Your task to perform on an android device: What's on my calendar today? Image 0: 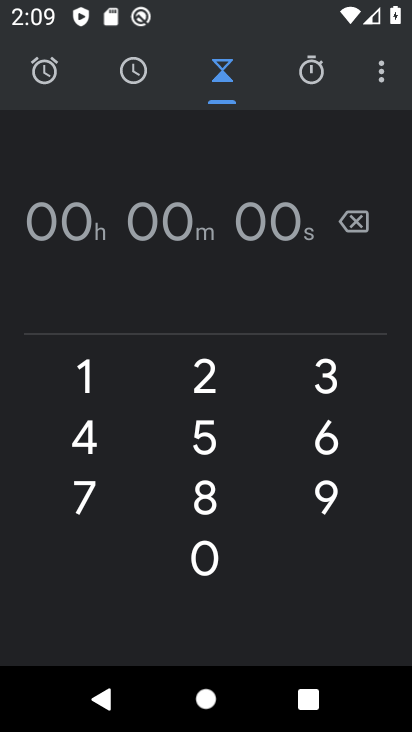
Step 0: press home button
Your task to perform on an android device: What's on my calendar today? Image 1: 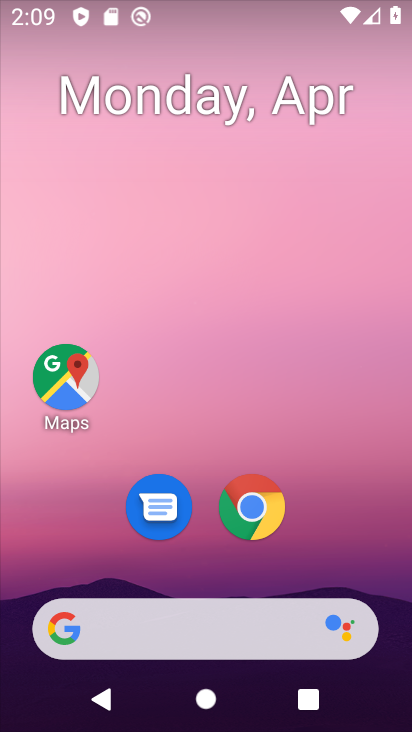
Step 1: drag from (398, 631) to (330, 22)
Your task to perform on an android device: What's on my calendar today? Image 2: 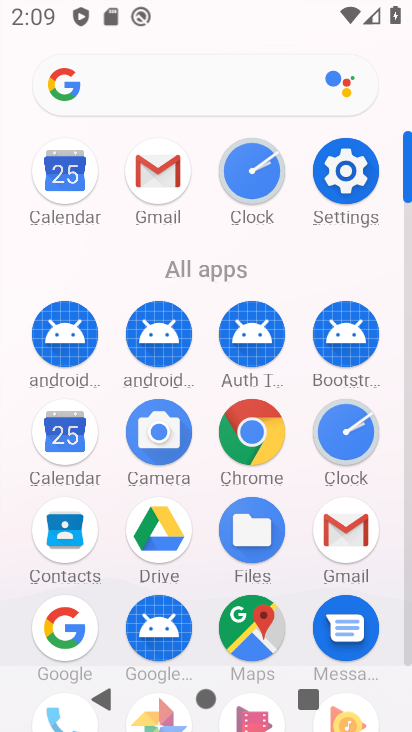
Step 2: click (410, 643)
Your task to perform on an android device: What's on my calendar today? Image 3: 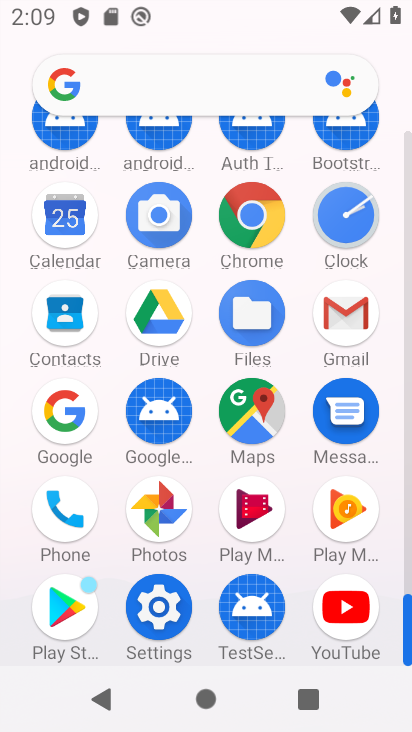
Step 3: click (58, 216)
Your task to perform on an android device: What's on my calendar today? Image 4: 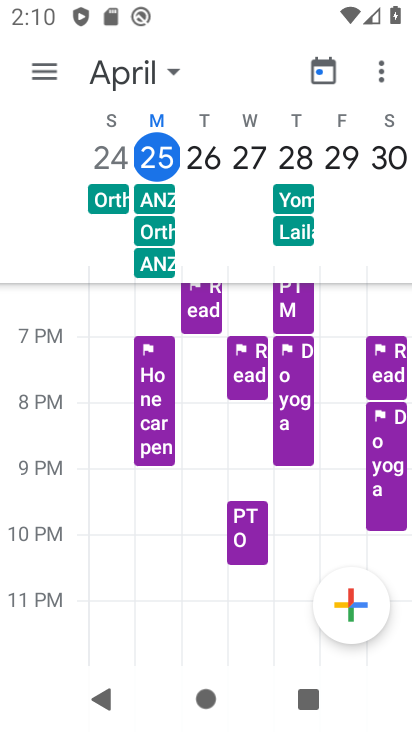
Step 4: click (41, 71)
Your task to perform on an android device: What's on my calendar today? Image 5: 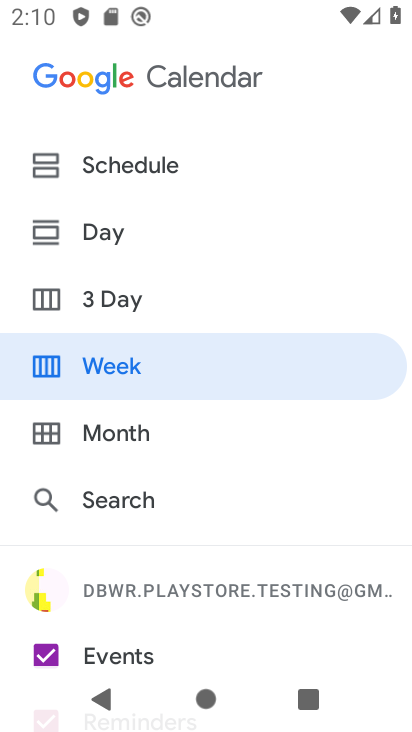
Step 5: click (96, 232)
Your task to perform on an android device: What's on my calendar today? Image 6: 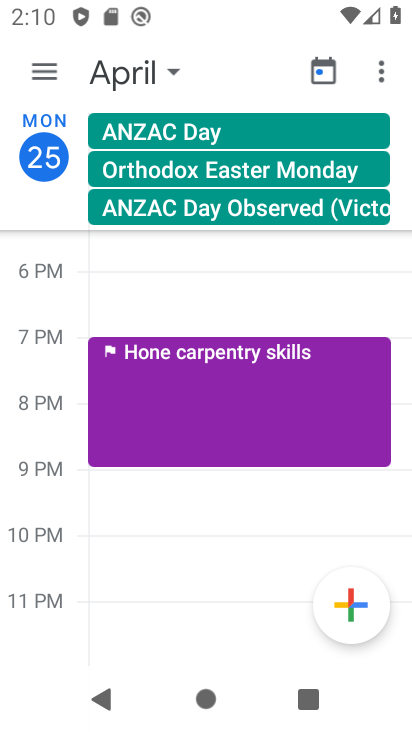
Step 6: task complete